Your task to perform on an android device: set the stopwatch Image 0: 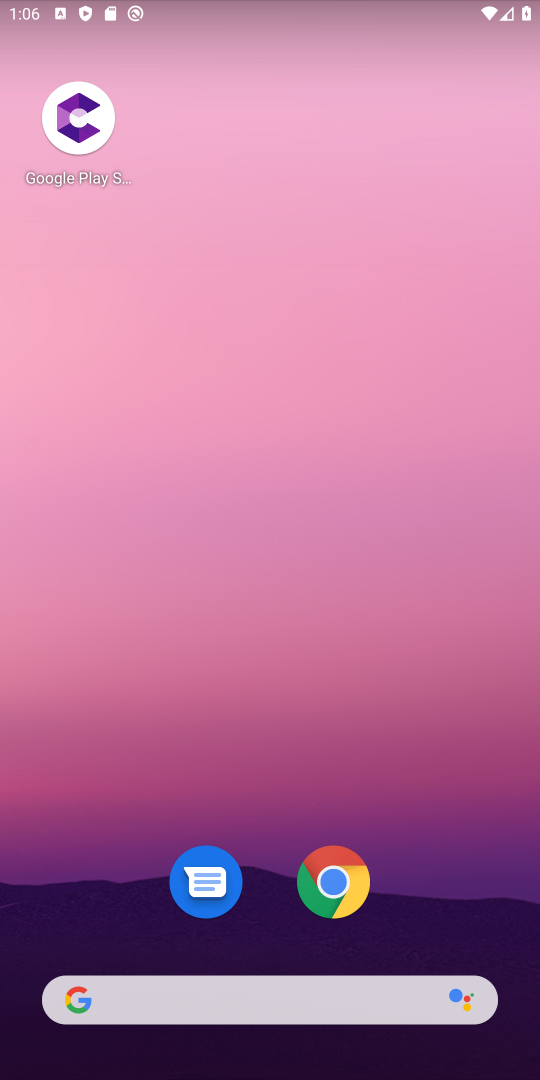
Step 0: drag from (293, 695) to (389, 20)
Your task to perform on an android device: set the stopwatch Image 1: 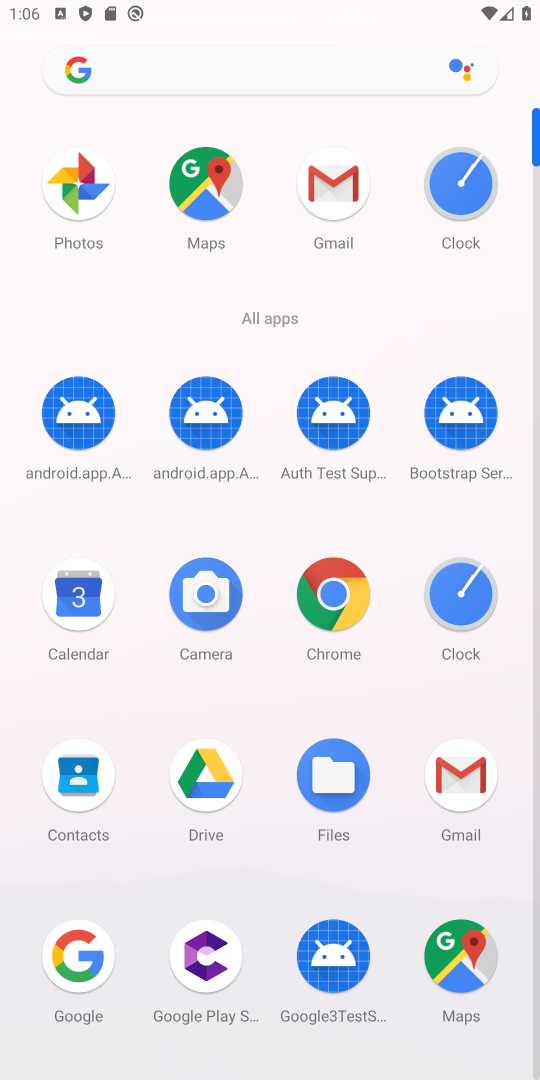
Step 1: click (462, 605)
Your task to perform on an android device: set the stopwatch Image 2: 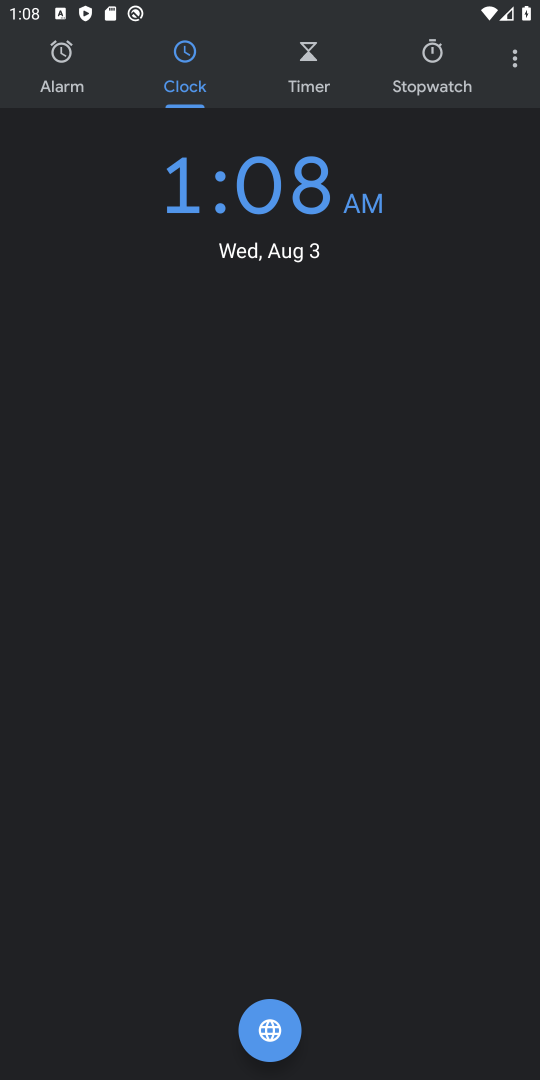
Step 2: click (418, 80)
Your task to perform on an android device: set the stopwatch Image 3: 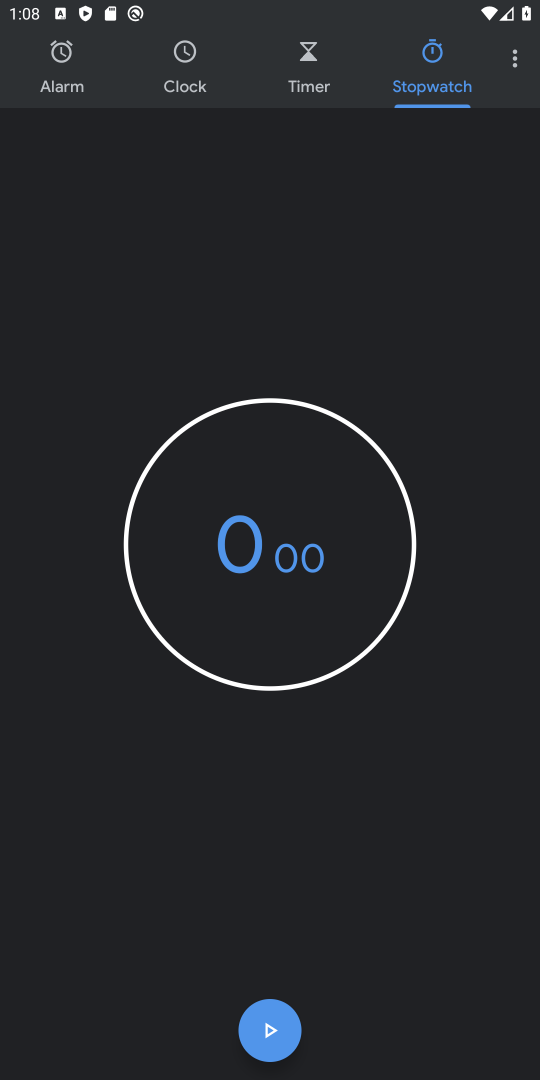
Step 3: click (267, 1057)
Your task to perform on an android device: set the stopwatch Image 4: 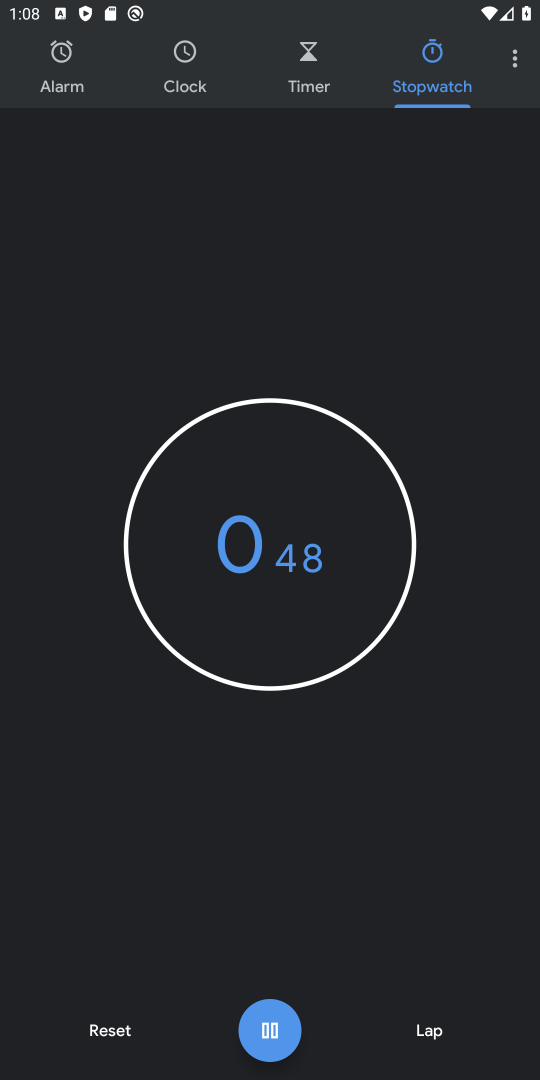
Step 4: task complete